Your task to perform on an android device: Show me the alarms in the clock app Image 0: 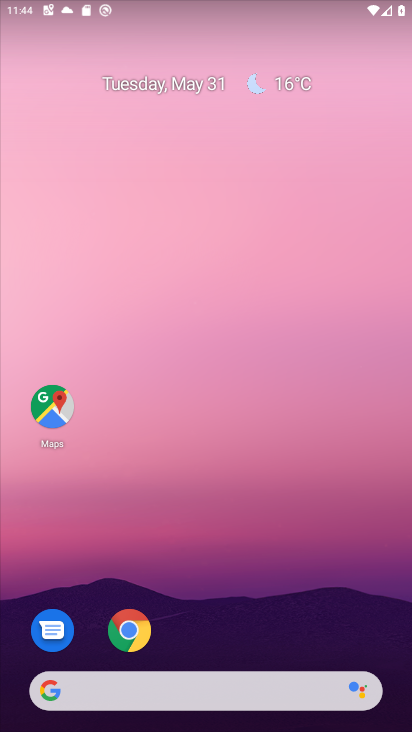
Step 0: drag from (247, 571) to (243, 59)
Your task to perform on an android device: Show me the alarms in the clock app Image 1: 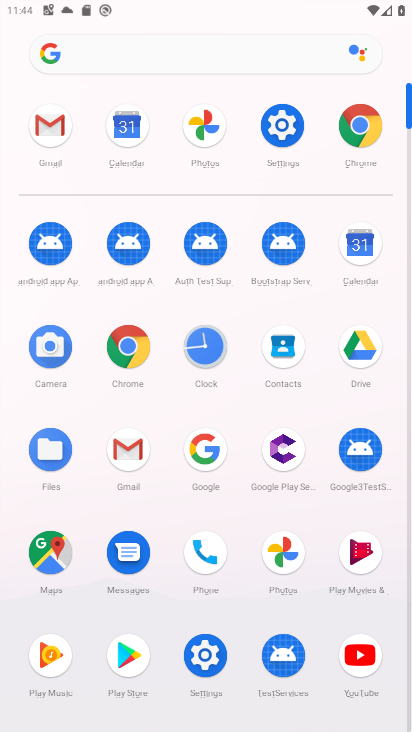
Step 1: click (204, 345)
Your task to perform on an android device: Show me the alarms in the clock app Image 2: 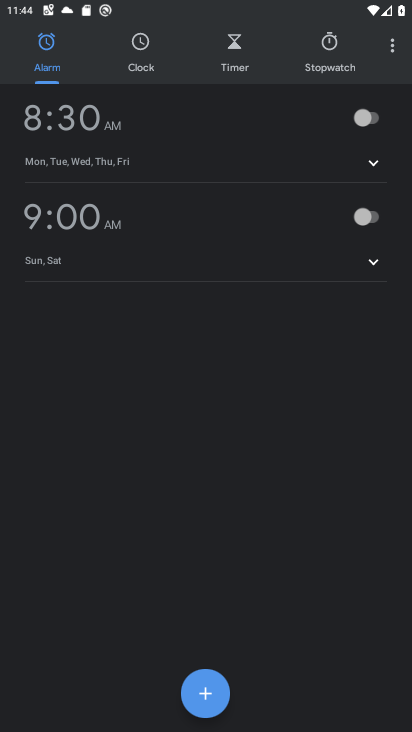
Step 2: task complete